Your task to perform on an android device: turn off smart reply in the gmail app Image 0: 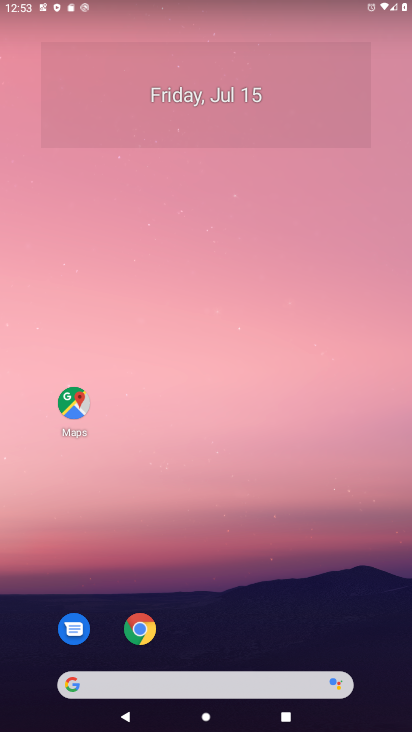
Step 0: press home button
Your task to perform on an android device: turn off smart reply in the gmail app Image 1: 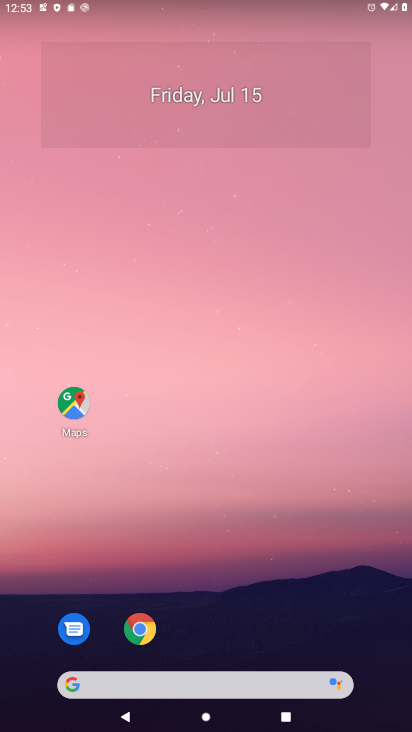
Step 1: drag from (253, 641) to (237, 17)
Your task to perform on an android device: turn off smart reply in the gmail app Image 2: 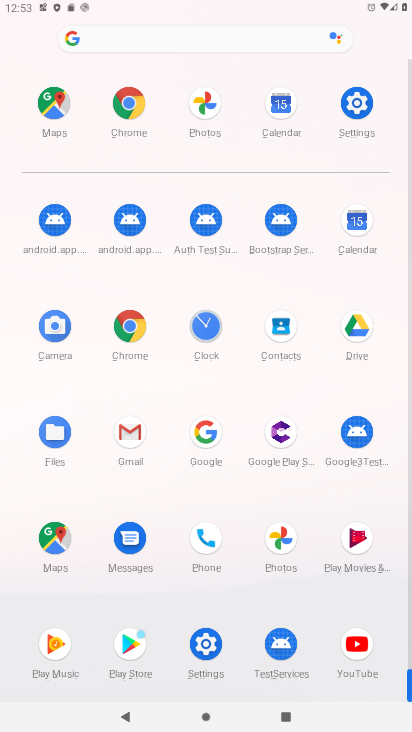
Step 2: click (130, 439)
Your task to perform on an android device: turn off smart reply in the gmail app Image 3: 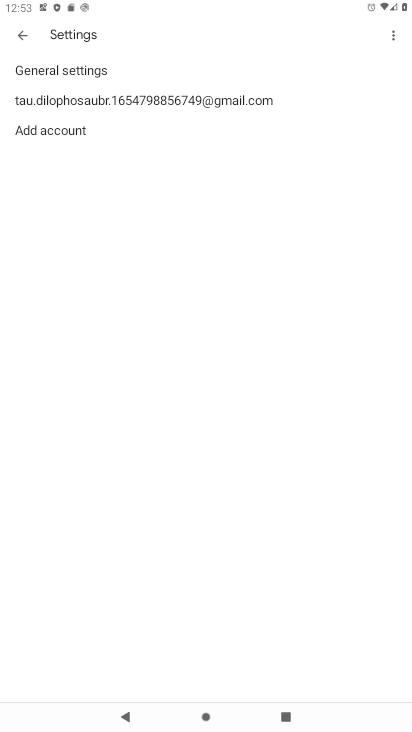
Step 3: click (28, 35)
Your task to perform on an android device: turn off smart reply in the gmail app Image 4: 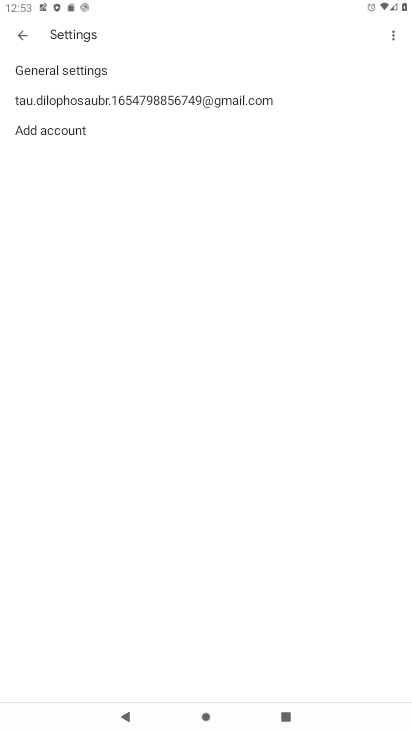
Step 4: click (86, 98)
Your task to perform on an android device: turn off smart reply in the gmail app Image 5: 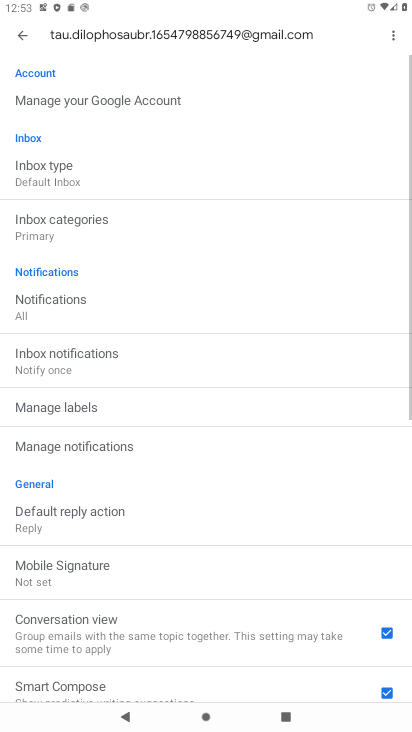
Step 5: task complete